Your task to perform on an android device: Open Google Chrome Image 0: 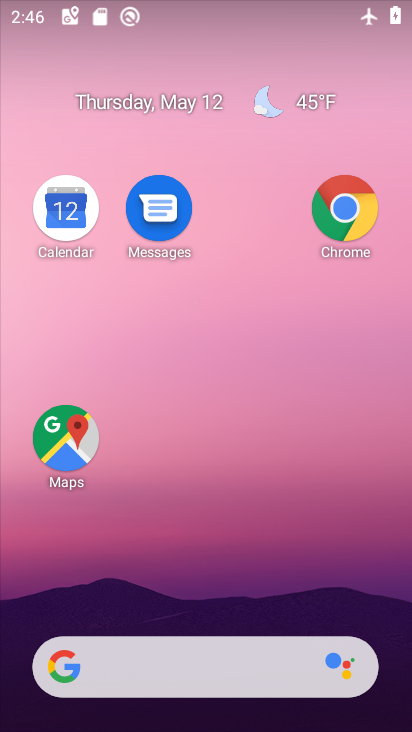
Step 0: click (226, 126)
Your task to perform on an android device: Open Google Chrome Image 1: 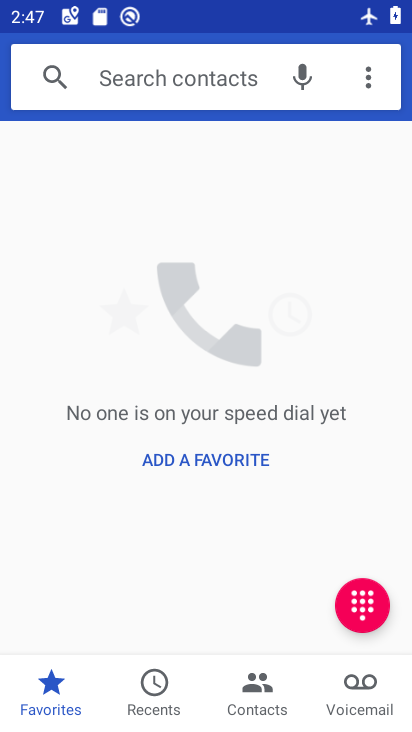
Step 1: press home button
Your task to perform on an android device: Open Google Chrome Image 2: 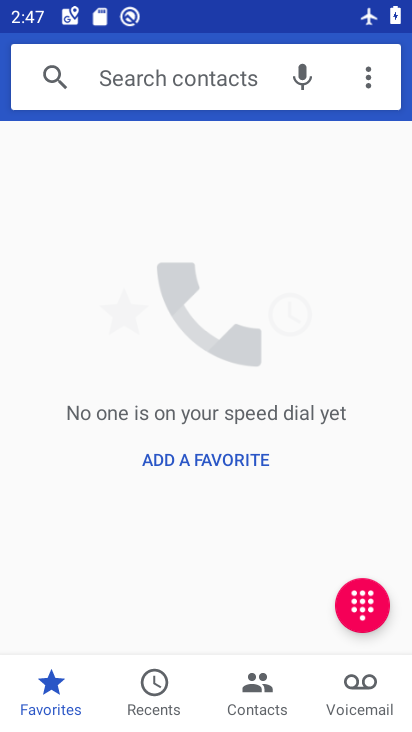
Step 2: press home button
Your task to perform on an android device: Open Google Chrome Image 3: 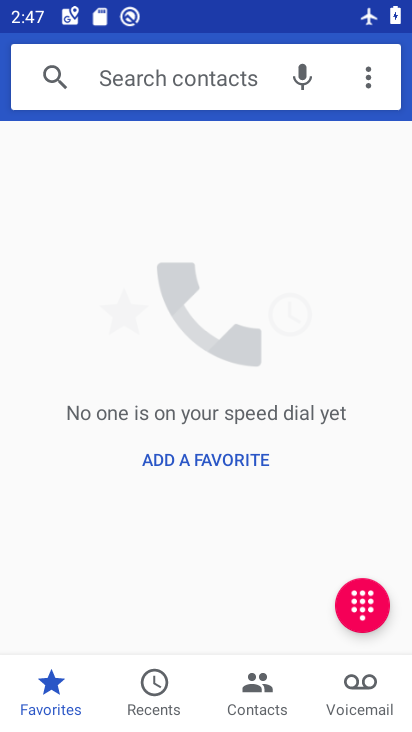
Step 3: drag from (198, 586) to (262, 274)
Your task to perform on an android device: Open Google Chrome Image 4: 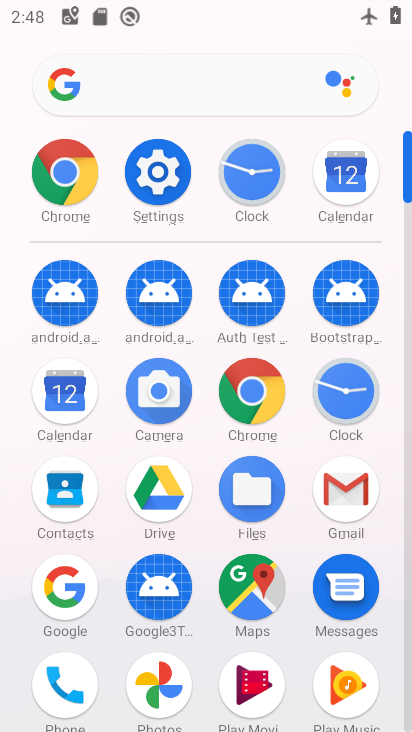
Step 4: click (250, 377)
Your task to perform on an android device: Open Google Chrome Image 5: 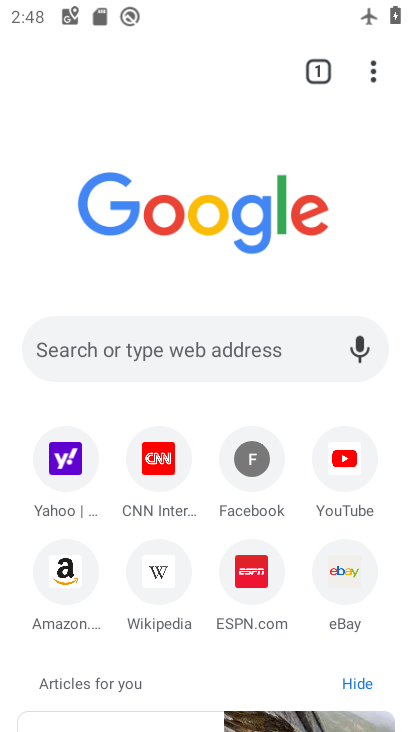
Step 5: task complete